Your task to perform on an android device: open the mobile data screen to see how much data has been used Image 0: 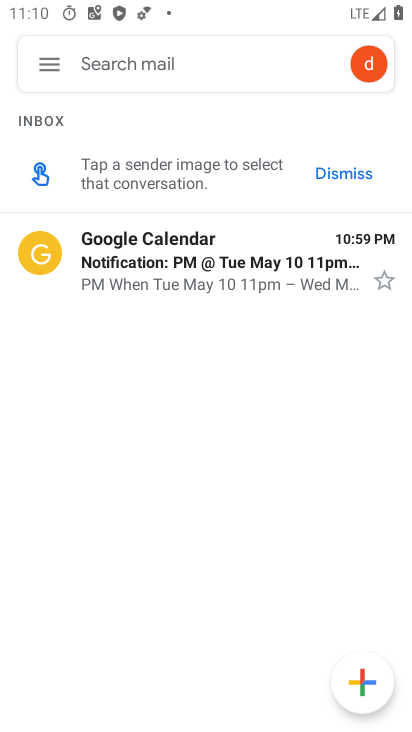
Step 0: press home button
Your task to perform on an android device: open the mobile data screen to see how much data has been used Image 1: 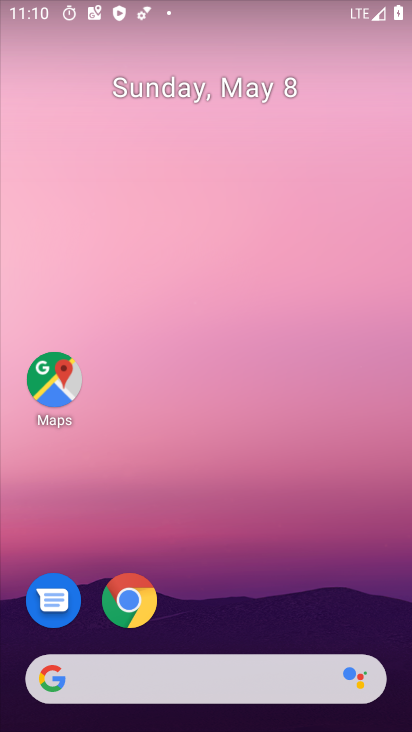
Step 1: drag from (49, 569) to (276, 155)
Your task to perform on an android device: open the mobile data screen to see how much data has been used Image 2: 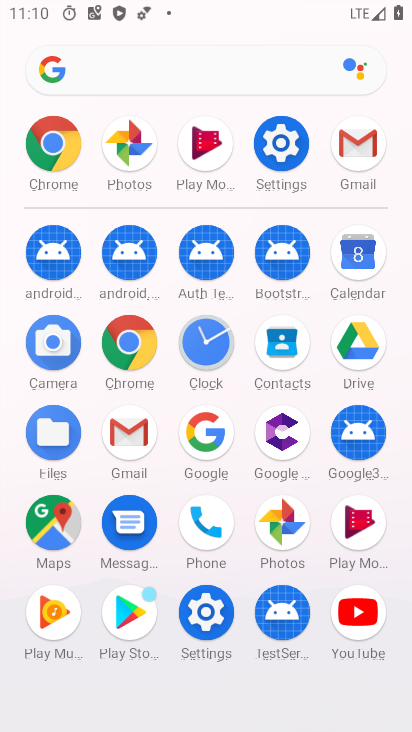
Step 2: click (303, 143)
Your task to perform on an android device: open the mobile data screen to see how much data has been used Image 3: 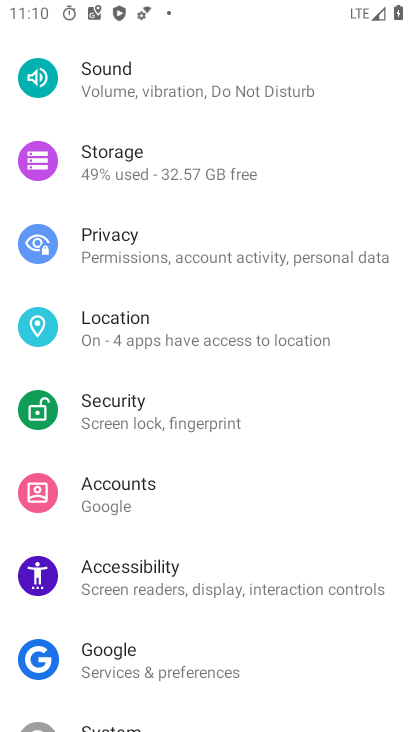
Step 3: drag from (189, 126) to (106, 608)
Your task to perform on an android device: open the mobile data screen to see how much data has been used Image 4: 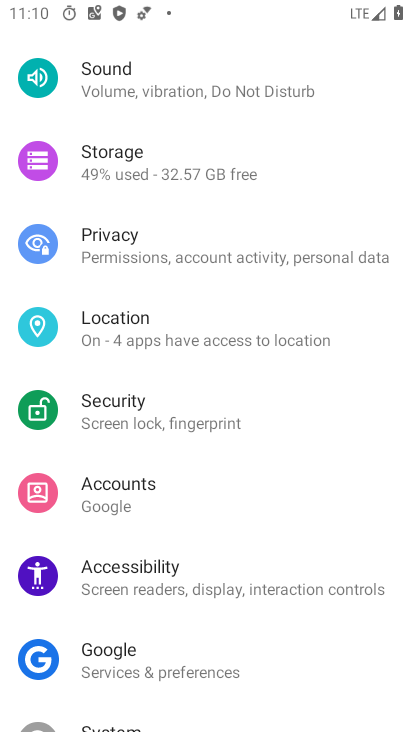
Step 4: drag from (221, 104) to (124, 523)
Your task to perform on an android device: open the mobile data screen to see how much data has been used Image 5: 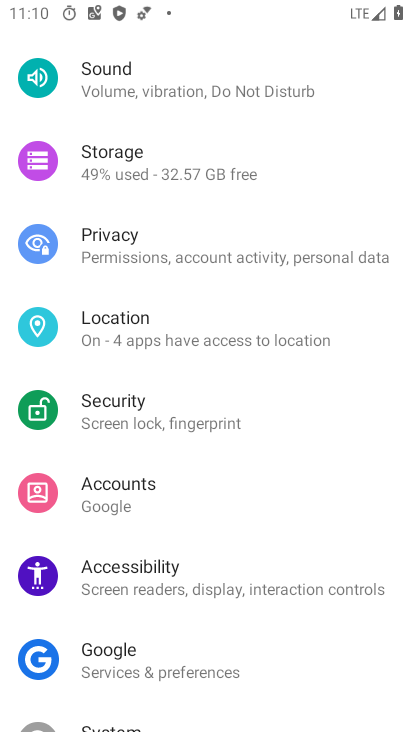
Step 5: drag from (224, 146) to (172, 708)
Your task to perform on an android device: open the mobile data screen to see how much data has been used Image 6: 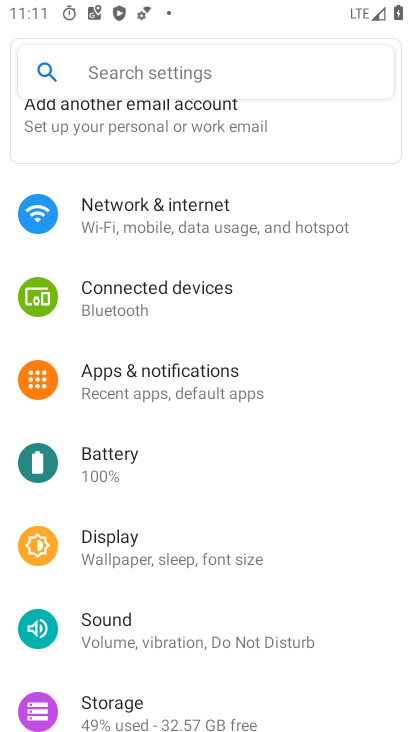
Step 6: click (157, 221)
Your task to perform on an android device: open the mobile data screen to see how much data has been used Image 7: 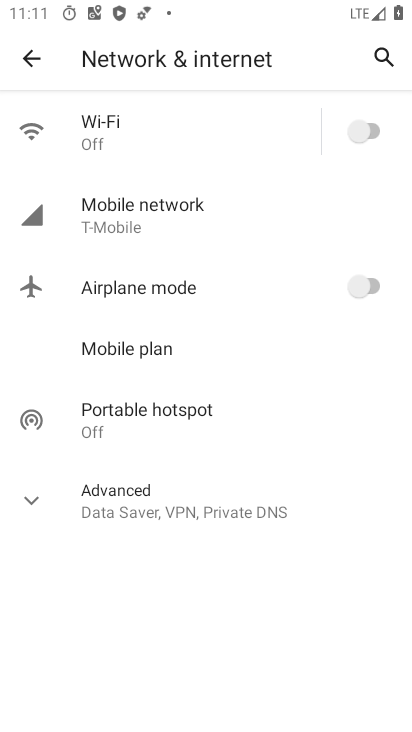
Step 7: click (163, 215)
Your task to perform on an android device: open the mobile data screen to see how much data has been used Image 8: 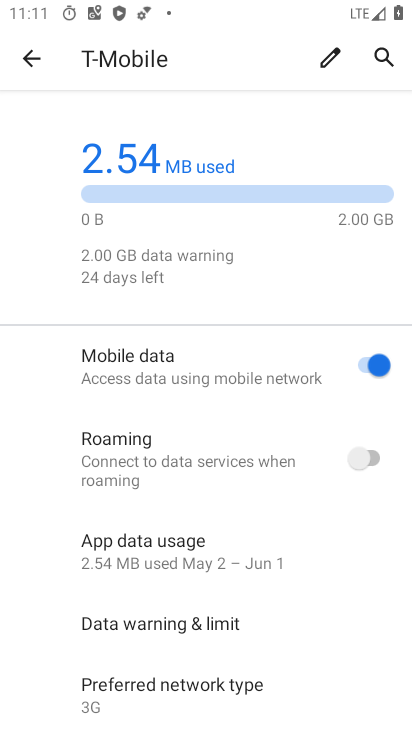
Step 8: task complete